Your task to perform on an android device: turn notification dots off Image 0: 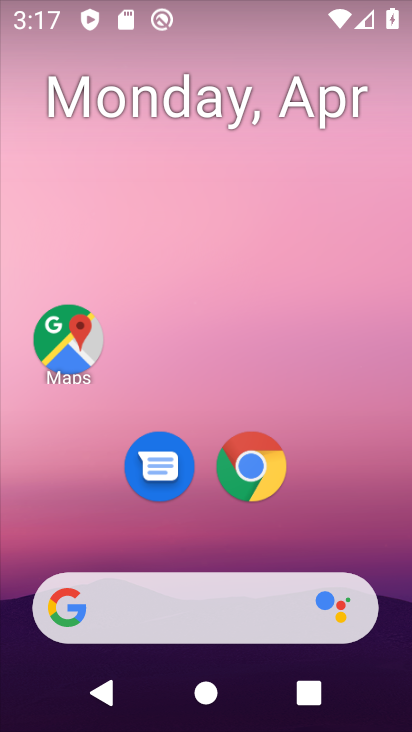
Step 0: drag from (358, 422) to (310, 96)
Your task to perform on an android device: turn notification dots off Image 1: 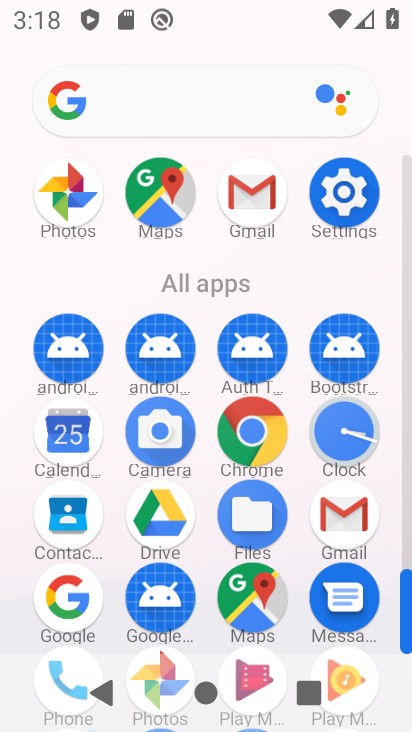
Step 1: click (334, 204)
Your task to perform on an android device: turn notification dots off Image 2: 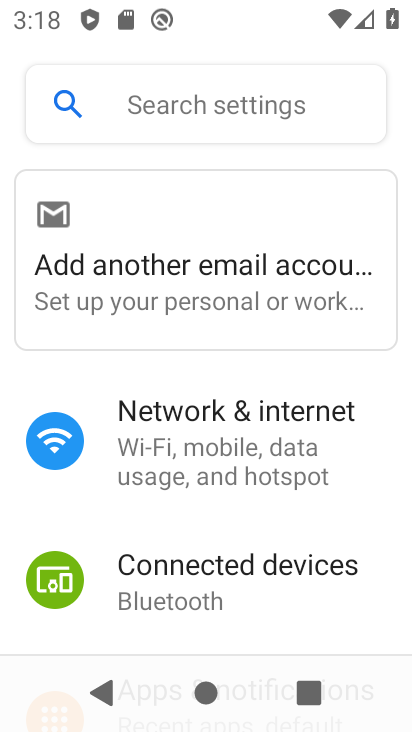
Step 2: drag from (138, 400) to (217, 135)
Your task to perform on an android device: turn notification dots off Image 3: 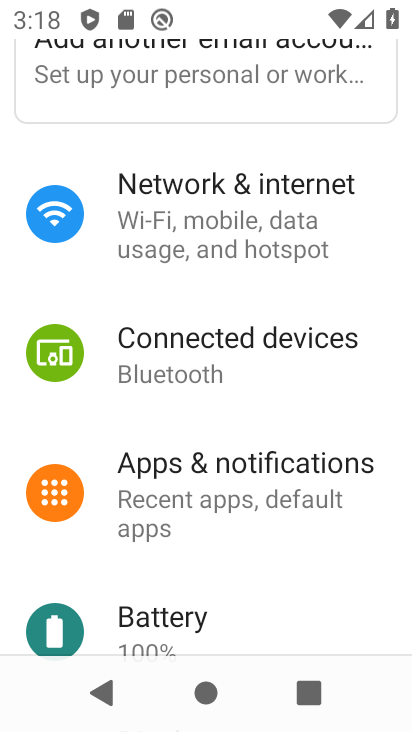
Step 3: drag from (302, 579) to (283, 428)
Your task to perform on an android device: turn notification dots off Image 4: 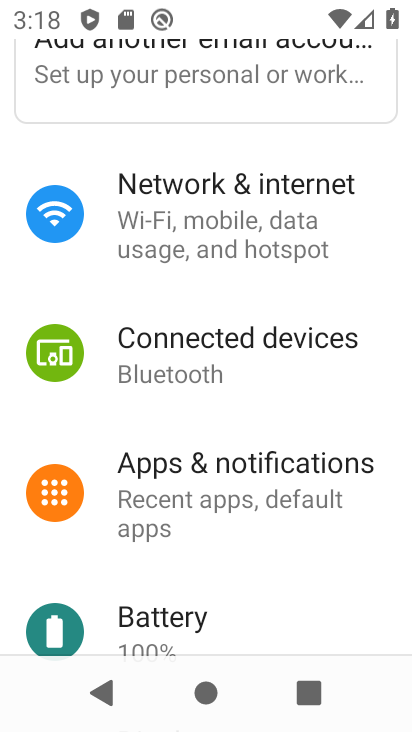
Step 4: drag from (298, 572) to (345, 421)
Your task to perform on an android device: turn notification dots off Image 5: 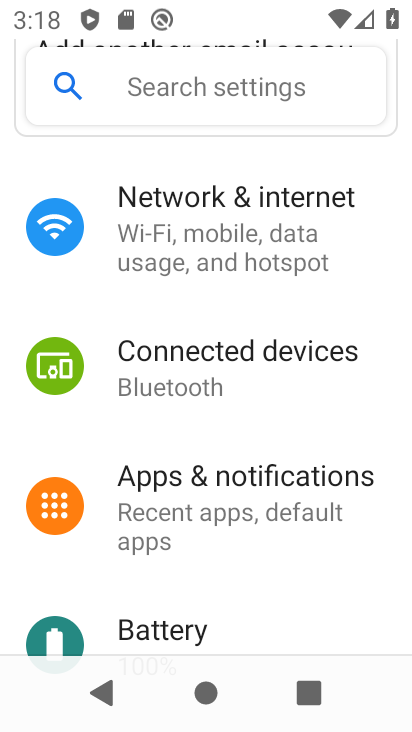
Step 5: drag from (126, 451) to (155, 496)
Your task to perform on an android device: turn notification dots off Image 6: 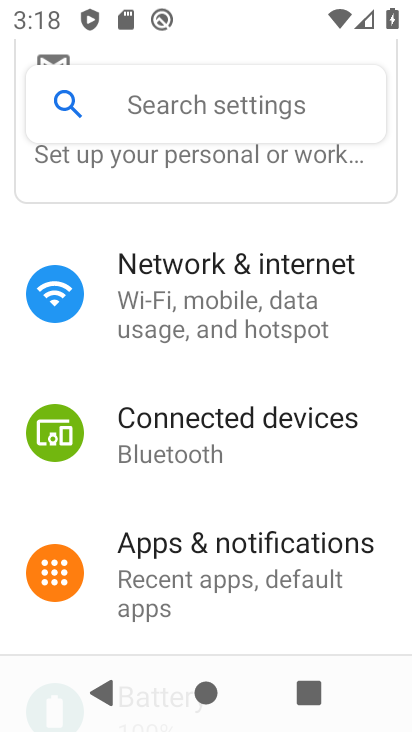
Step 6: click (224, 550)
Your task to perform on an android device: turn notification dots off Image 7: 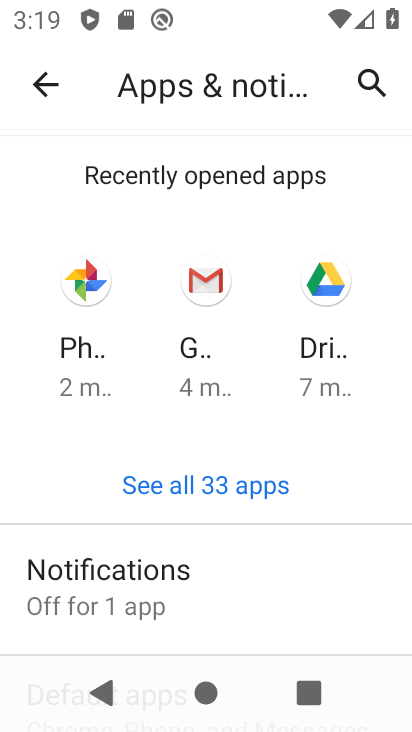
Step 7: click (126, 600)
Your task to perform on an android device: turn notification dots off Image 8: 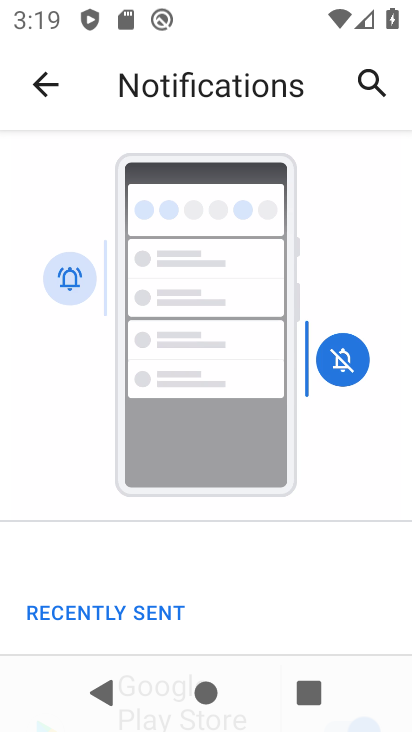
Step 8: drag from (223, 582) to (196, 24)
Your task to perform on an android device: turn notification dots off Image 9: 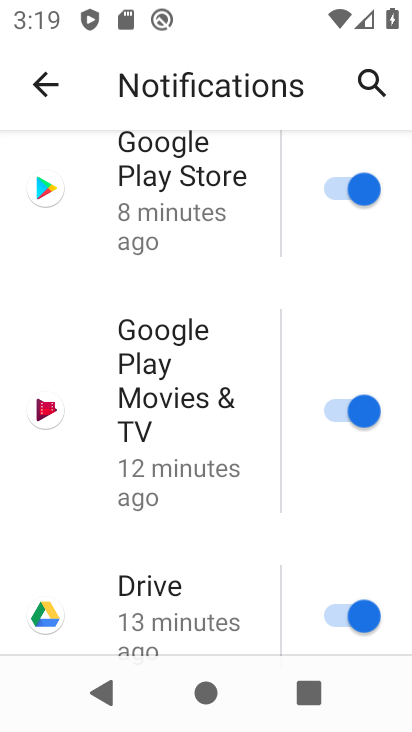
Step 9: drag from (227, 332) to (240, 24)
Your task to perform on an android device: turn notification dots off Image 10: 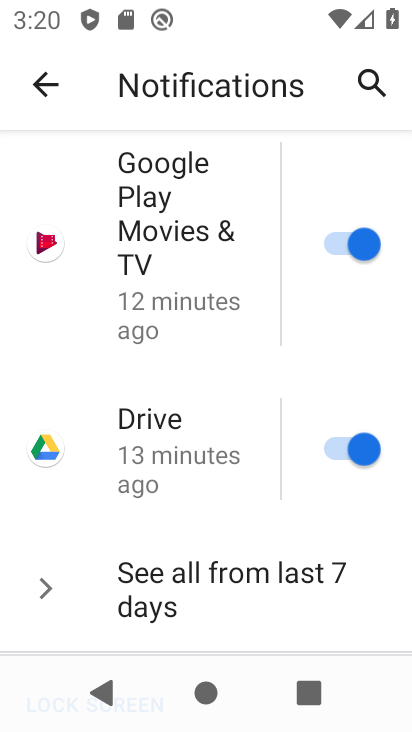
Step 10: drag from (223, 206) to (223, 108)
Your task to perform on an android device: turn notification dots off Image 11: 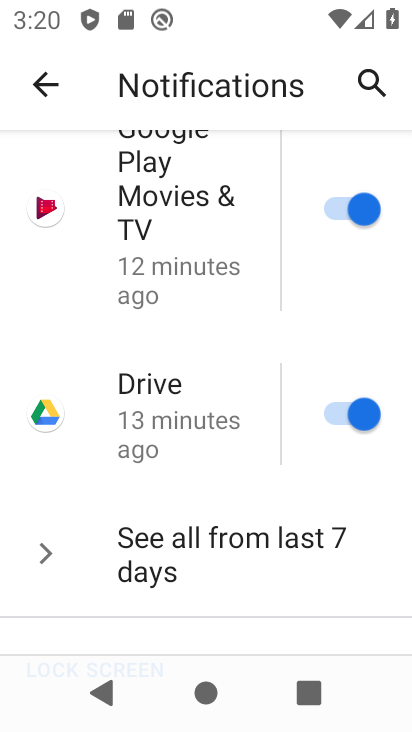
Step 11: drag from (217, 356) to (236, 135)
Your task to perform on an android device: turn notification dots off Image 12: 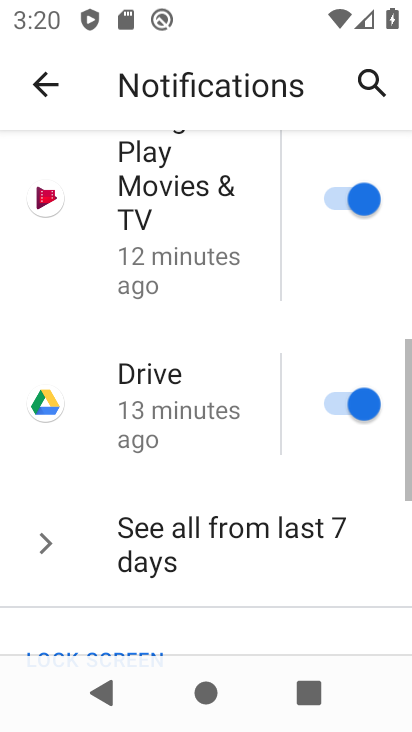
Step 12: drag from (236, 572) to (173, 289)
Your task to perform on an android device: turn notification dots off Image 13: 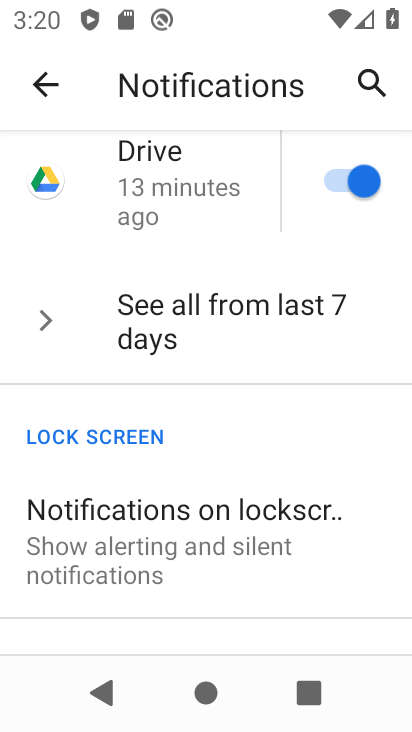
Step 13: click (188, 609)
Your task to perform on an android device: turn notification dots off Image 14: 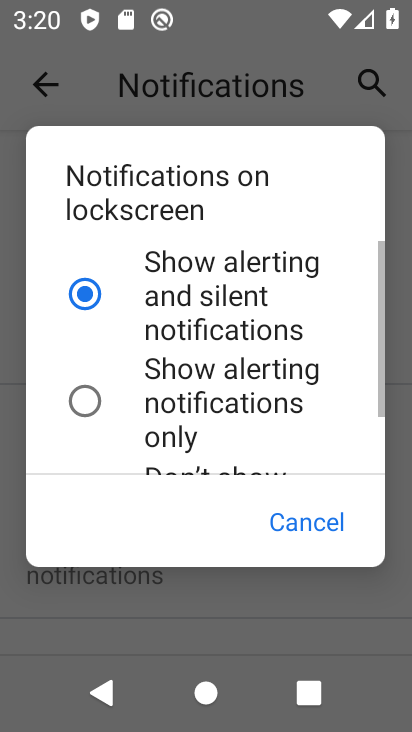
Step 14: drag from (296, 464) to (302, 535)
Your task to perform on an android device: turn notification dots off Image 15: 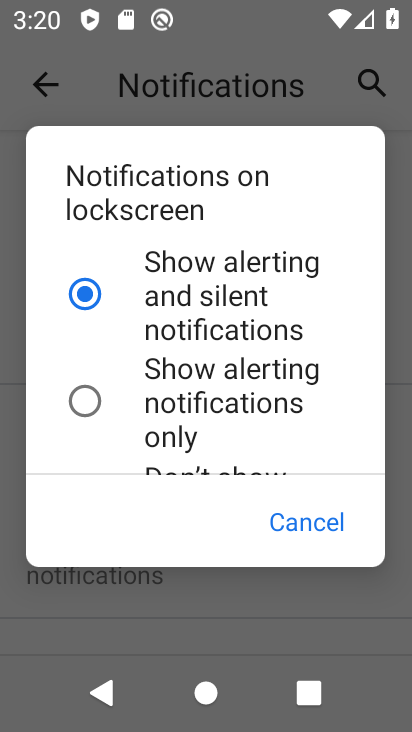
Step 15: click (300, 525)
Your task to perform on an android device: turn notification dots off Image 16: 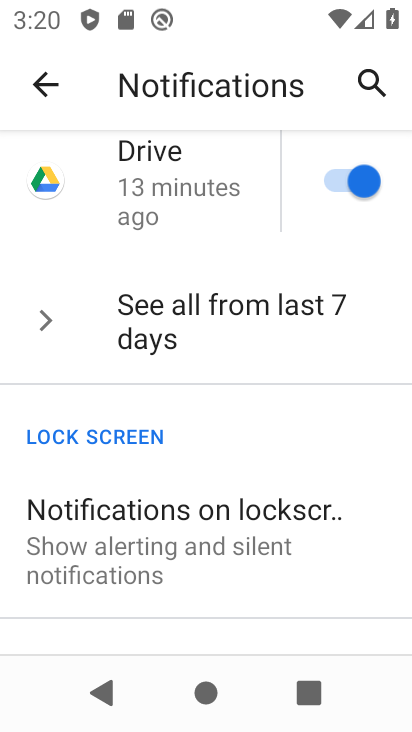
Step 16: drag from (309, 592) to (277, 161)
Your task to perform on an android device: turn notification dots off Image 17: 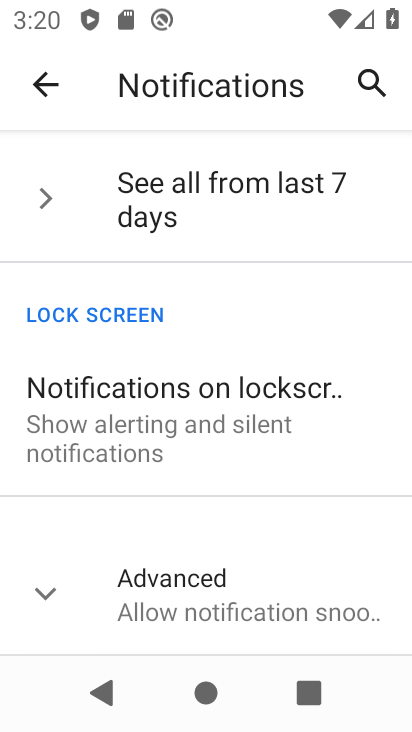
Step 17: click (255, 612)
Your task to perform on an android device: turn notification dots off Image 18: 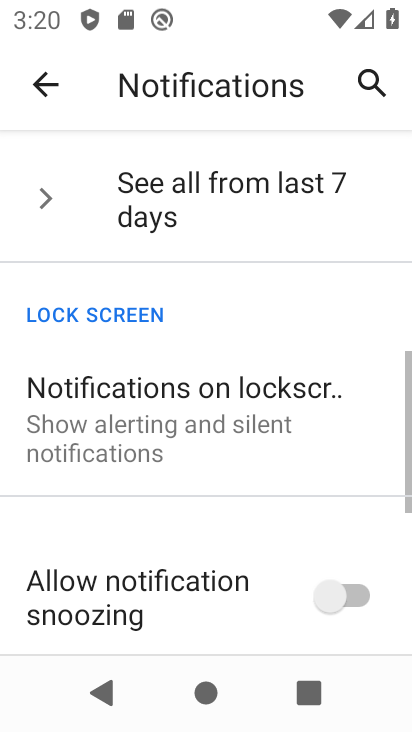
Step 18: drag from (324, 629) to (297, 236)
Your task to perform on an android device: turn notification dots off Image 19: 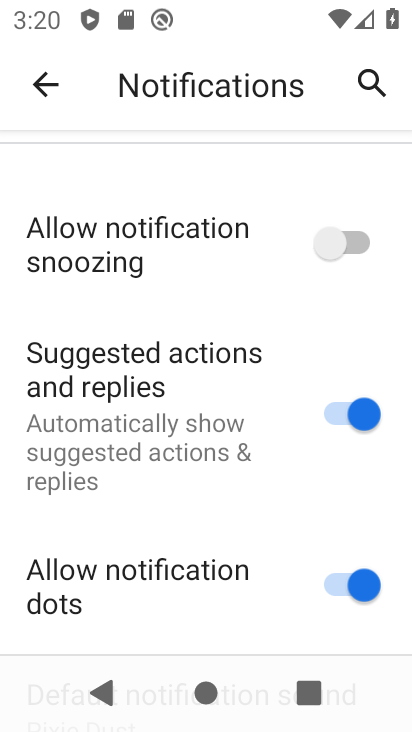
Step 19: click (312, 581)
Your task to perform on an android device: turn notification dots off Image 20: 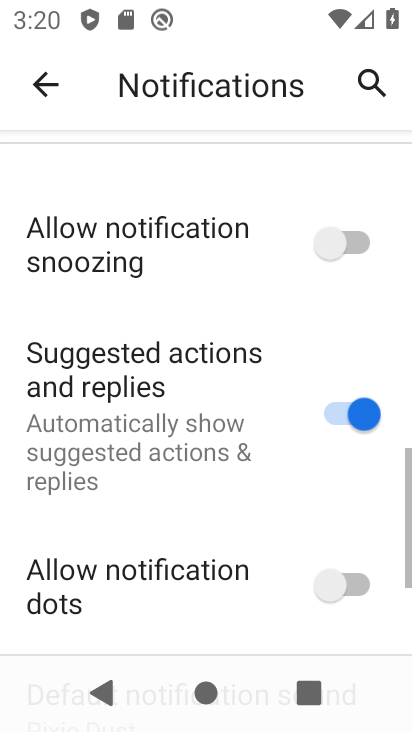
Step 20: task complete